Your task to perform on an android device: Open Youtube and go to the subscriptions tab Image 0: 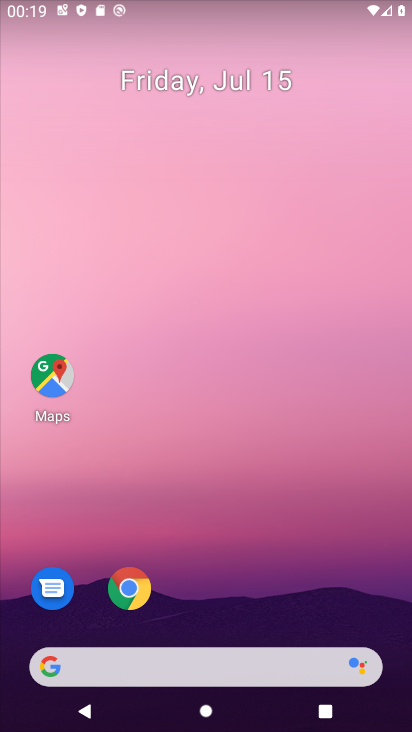
Step 0: drag from (239, 662) to (234, 67)
Your task to perform on an android device: Open Youtube and go to the subscriptions tab Image 1: 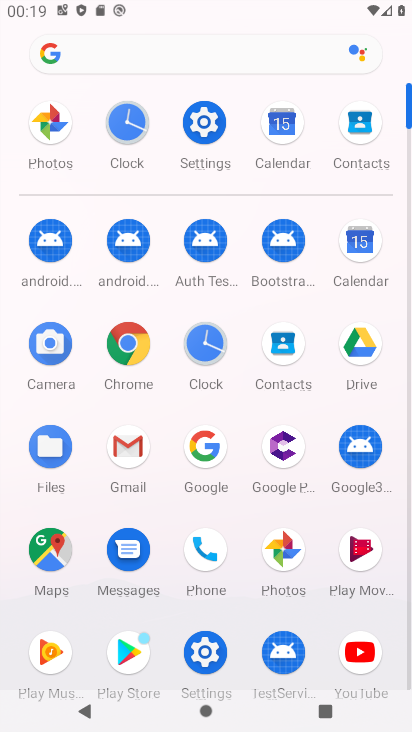
Step 1: click (358, 652)
Your task to perform on an android device: Open Youtube and go to the subscriptions tab Image 2: 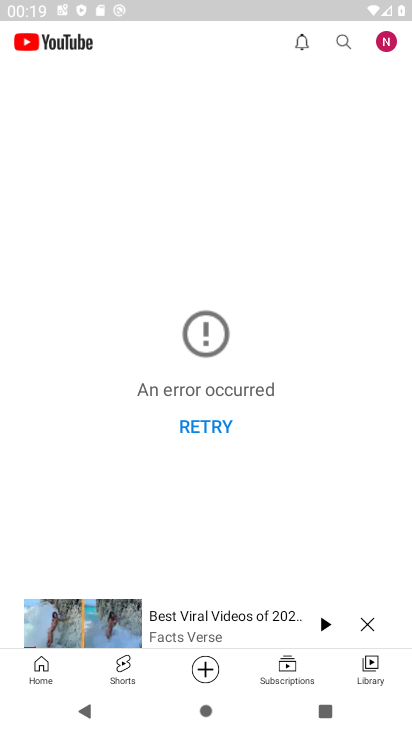
Step 2: click (277, 671)
Your task to perform on an android device: Open Youtube and go to the subscriptions tab Image 3: 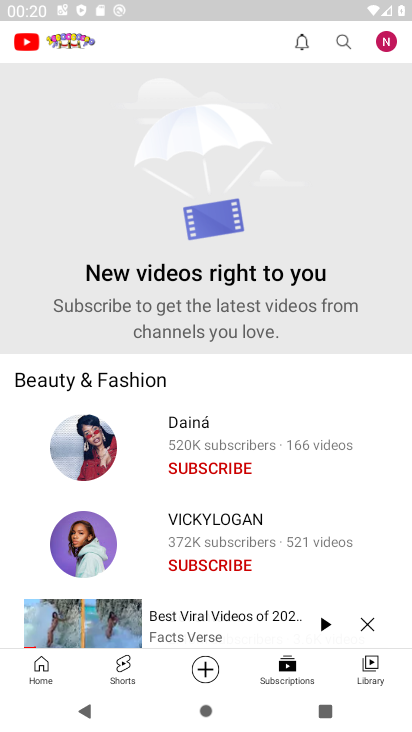
Step 3: click (288, 669)
Your task to perform on an android device: Open Youtube and go to the subscriptions tab Image 4: 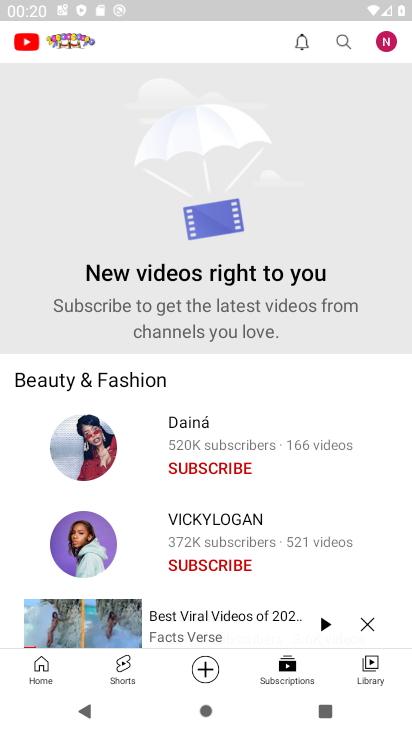
Step 4: task complete